Your task to perform on an android device: Open Wikipedia Image 0: 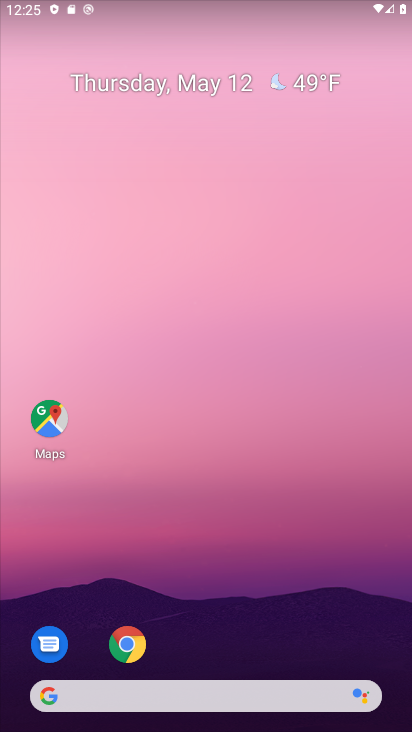
Step 0: click (129, 642)
Your task to perform on an android device: Open Wikipedia Image 1: 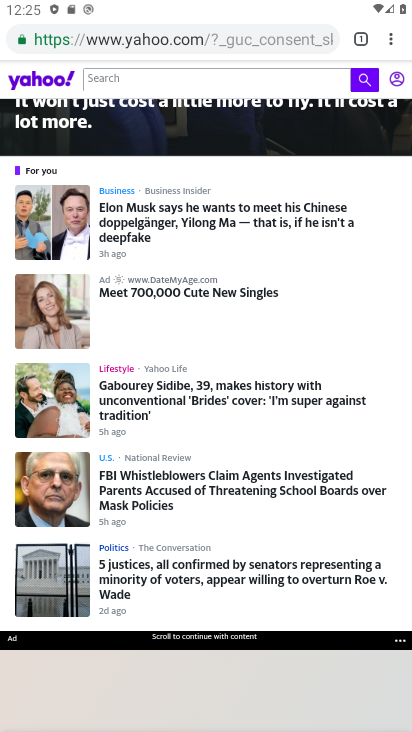
Step 1: click (391, 35)
Your task to perform on an android device: Open Wikipedia Image 2: 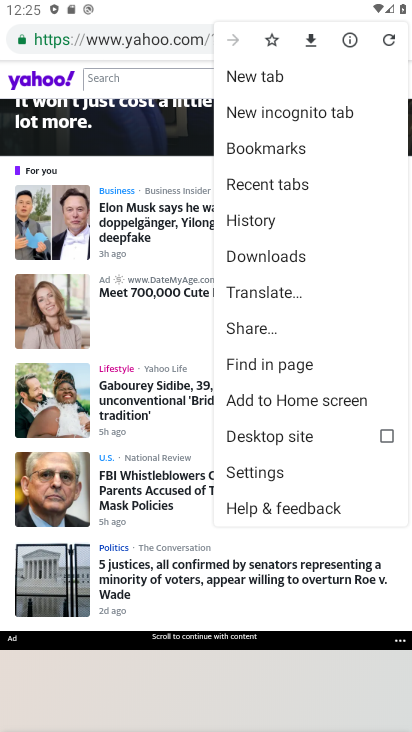
Step 2: click (274, 75)
Your task to perform on an android device: Open Wikipedia Image 3: 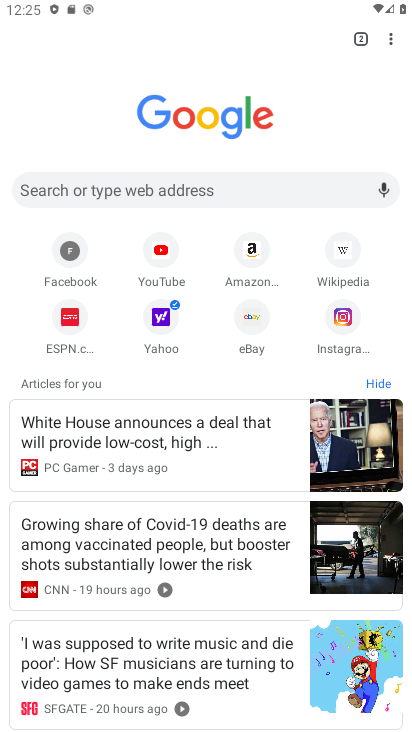
Step 3: click (334, 259)
Your task to perform on an android device: Open Wikipedia Image 4: 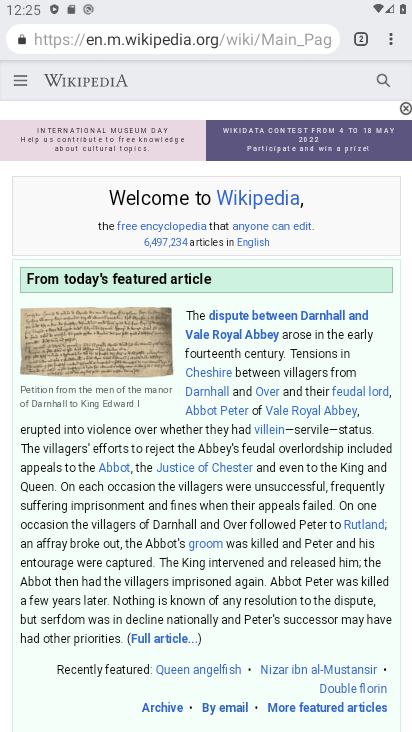
Step 4: task complete